Your task to perform on an android device: change your default location settings in chrome Image 0: 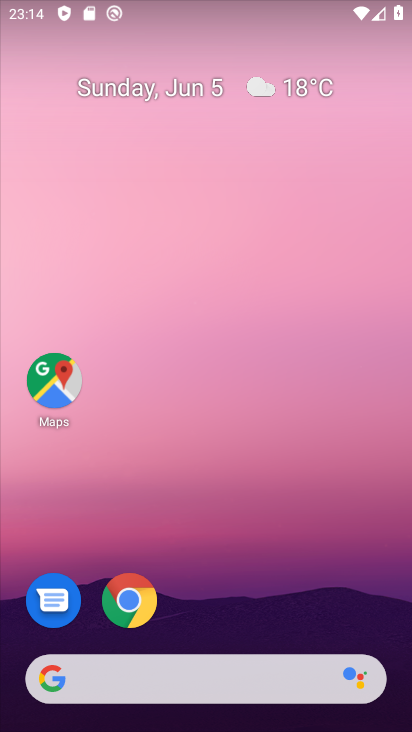
Step 0: click (119, 600)
Your task to perform on an android device: change your default location settings in chrome Image 1: 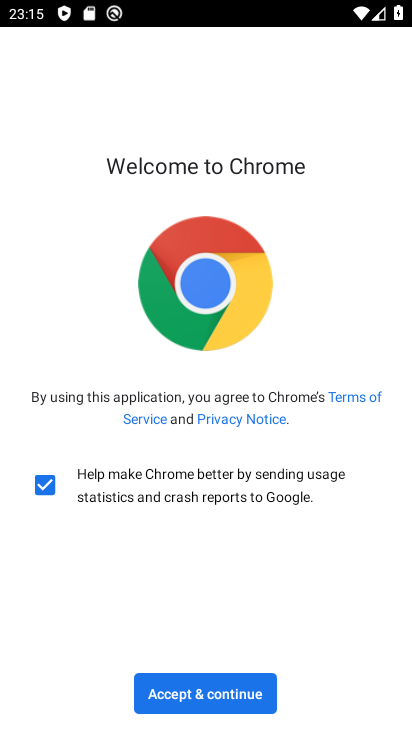
Step 1: click (203, 701)
Your task to perform on an android device: change your default location settings in chrome Image 2: 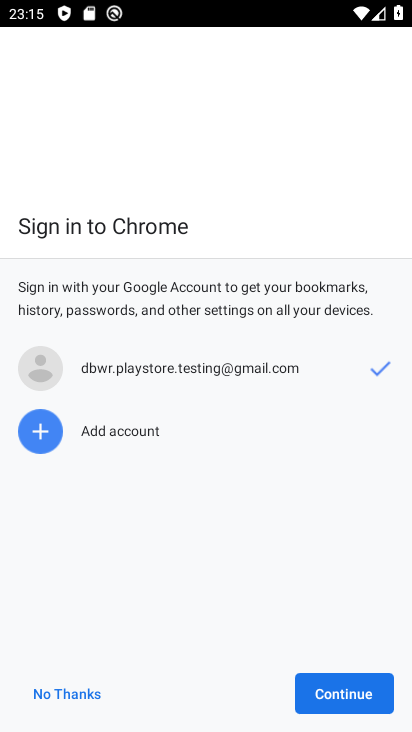
Step 2: click (348, 691)
Your task to perform on an android device: change your default location settings in chrome Image 3: 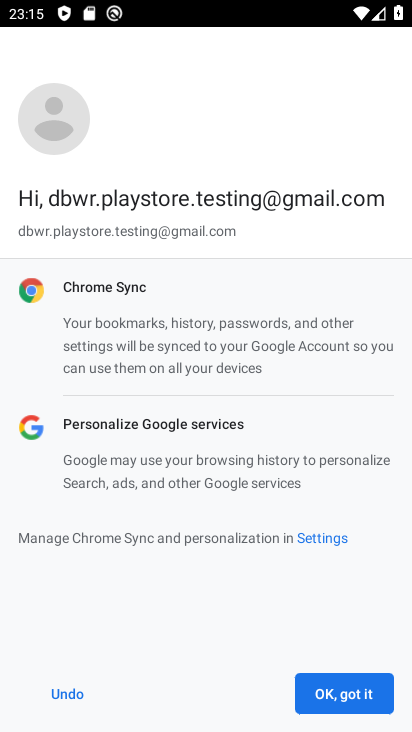
Step 3: click (348, 691)
Your task to perform on an android device: change your default location settings in chrome Image 4: 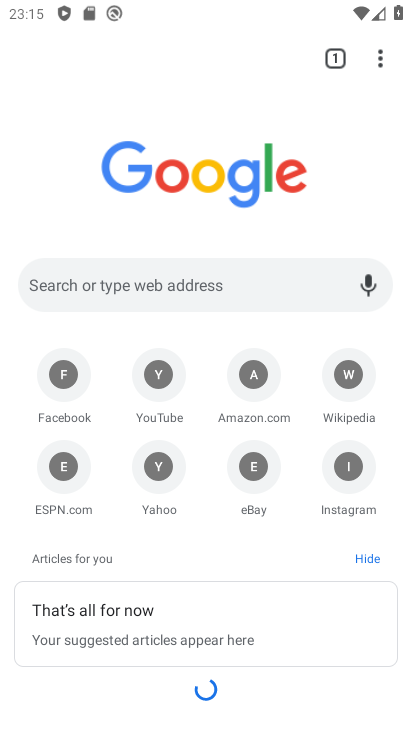
Step 4: click (382, 61)
Your task to perform on an android device: change your default location settings in chrome Image 5: 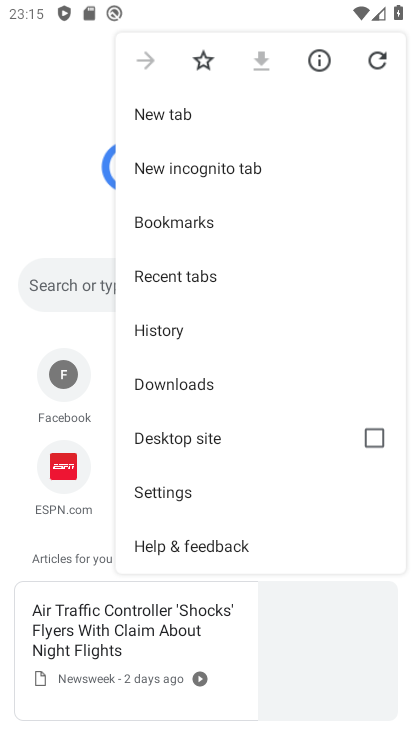
Step 5: click (168, 489)
Your task to perform on an android device: change your default location settings in chrome Image 6: 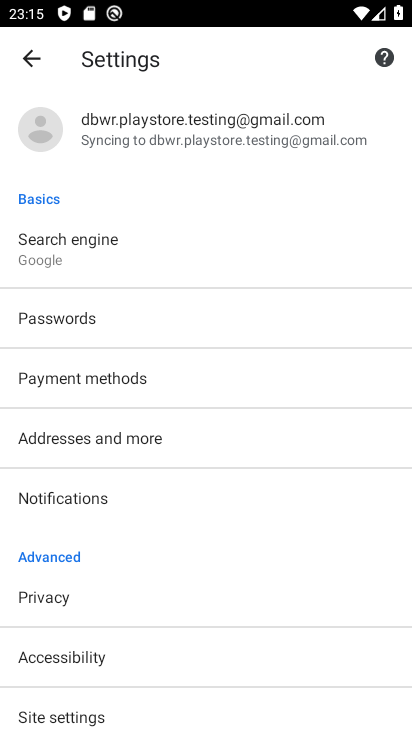
Step 6: drag from (106, 697) to (157, 266)
Your task to perform on an android device: change your default location settings in chrome Image 7: 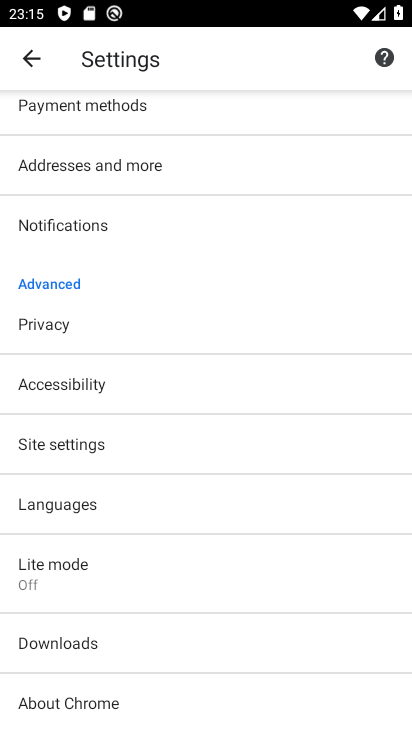
Step 7: click (100, 442)
Your task to perform on an android device: change your default location settings in chrome Image 8: 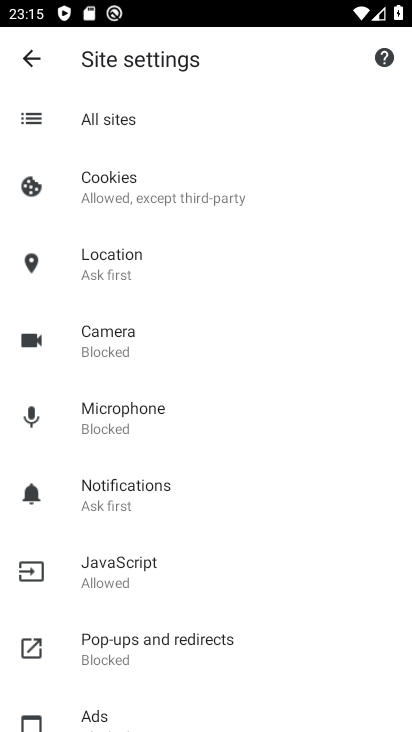
Step 8: click (111, 267)
Your task to perform on an android device: change your default location settings in chrome Image 9: 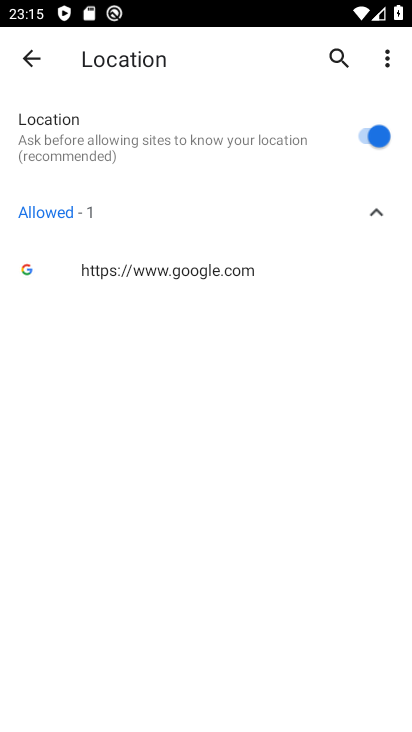
Step 9: click (366, 134)
Your task to perform on an android device: change your default location settings in chrome Image 10: 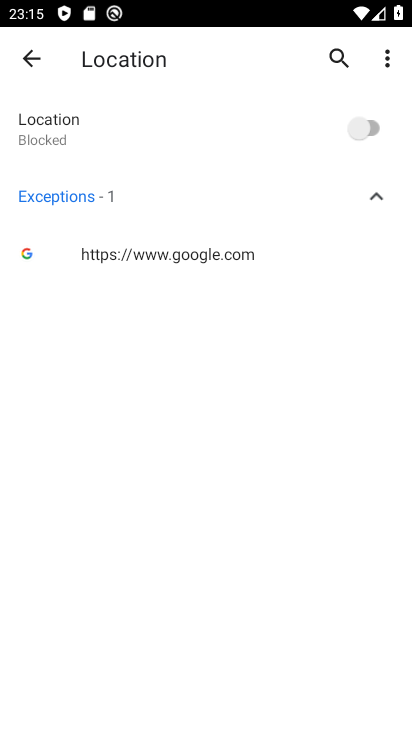
Step 10: task complete